Your task to perform on an android device: Open Yahoo.com Image 0: 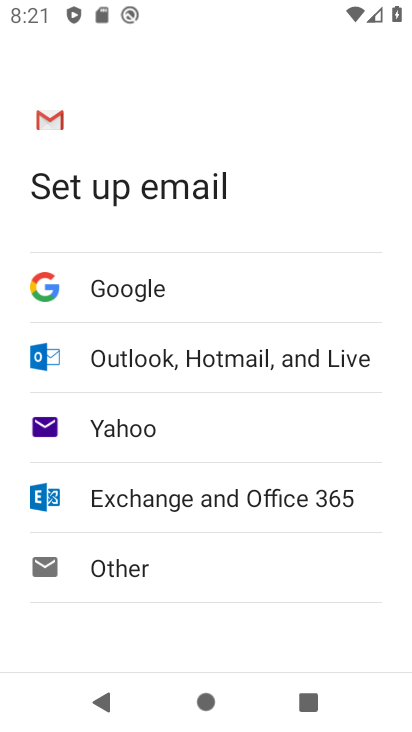
Step 0: press home button
Your task to perform on an android device: Open Yahoo.com Image 1: 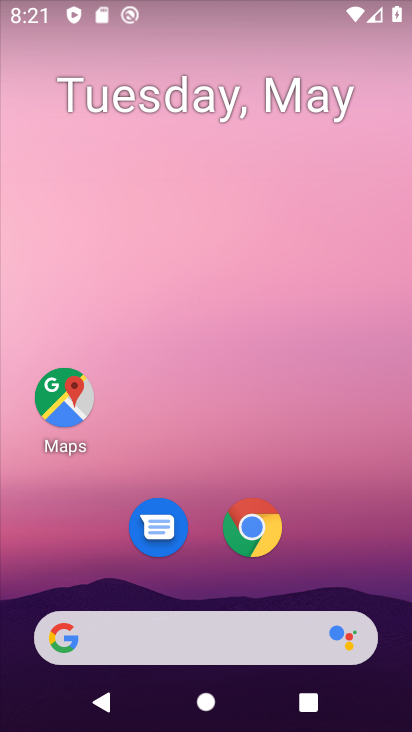
Step 1: click (267, 526)
Your task to perform on an android device: Open Yahoo.com Image 2: 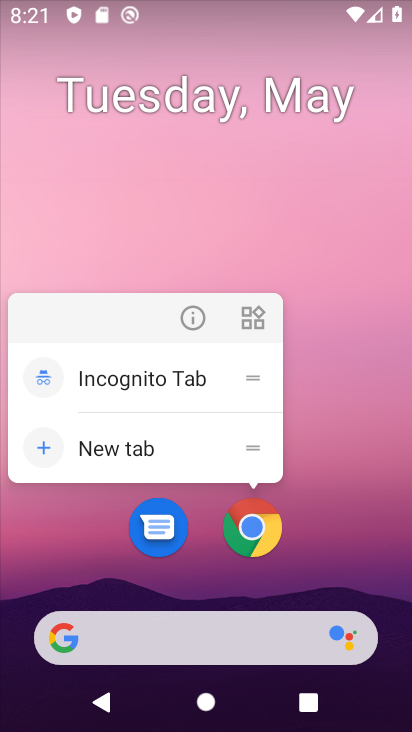
Step 2: click (260, 532)
Your task to perform on an android device: Open Yahoo.com Image 3: 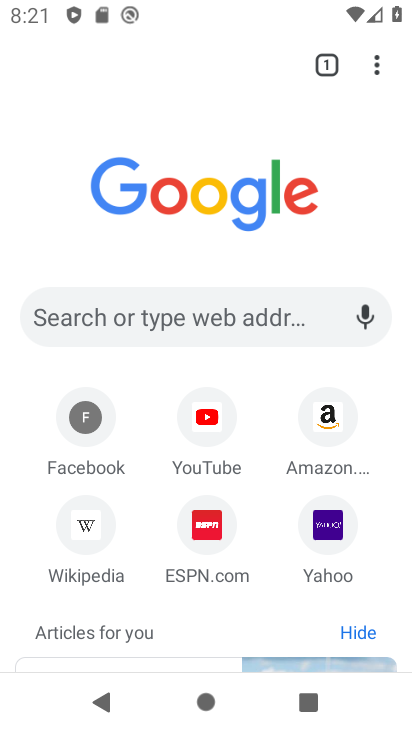
Step 3: click (335, 527)
Your task to perform on an android device: Open Yahoo.com Image 4: 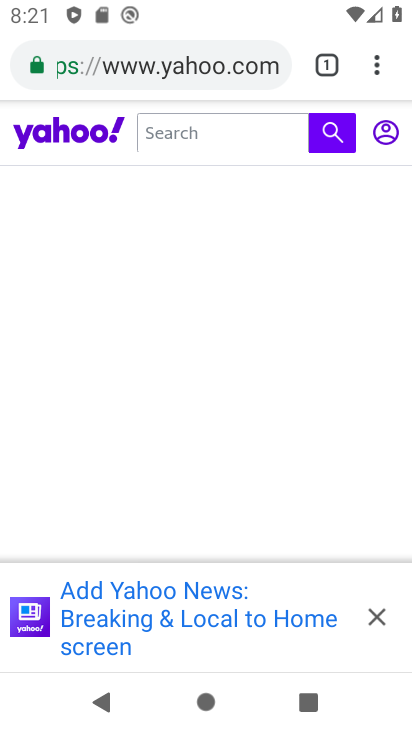
Step 4: task complete